Your task to perform on an android device: clear all cookies in the chrome app Image 0: 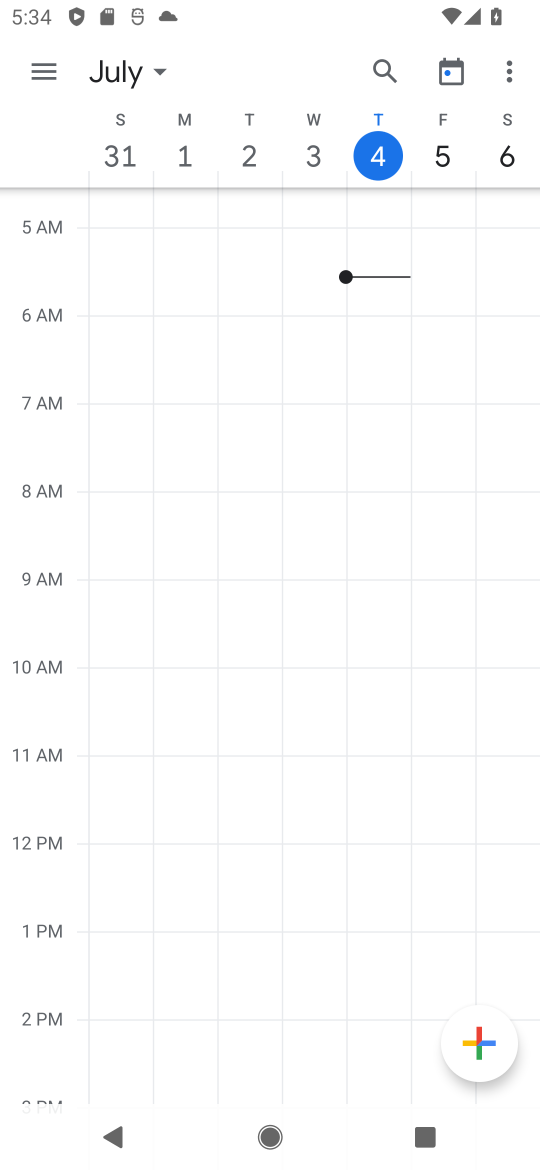
Step 0: press home button
Your task to perform on an android device: clear all cookies in the chrome app Image 1: 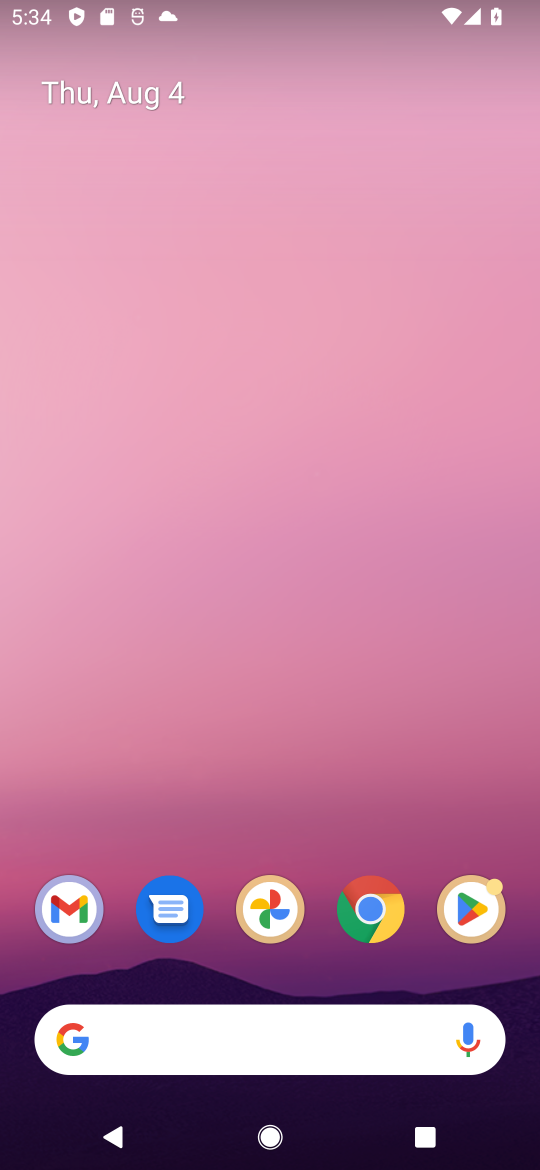
Step 1: click (370, 916)
Your task to perform on an android device: clear all cookies in the chrome app Image 2: 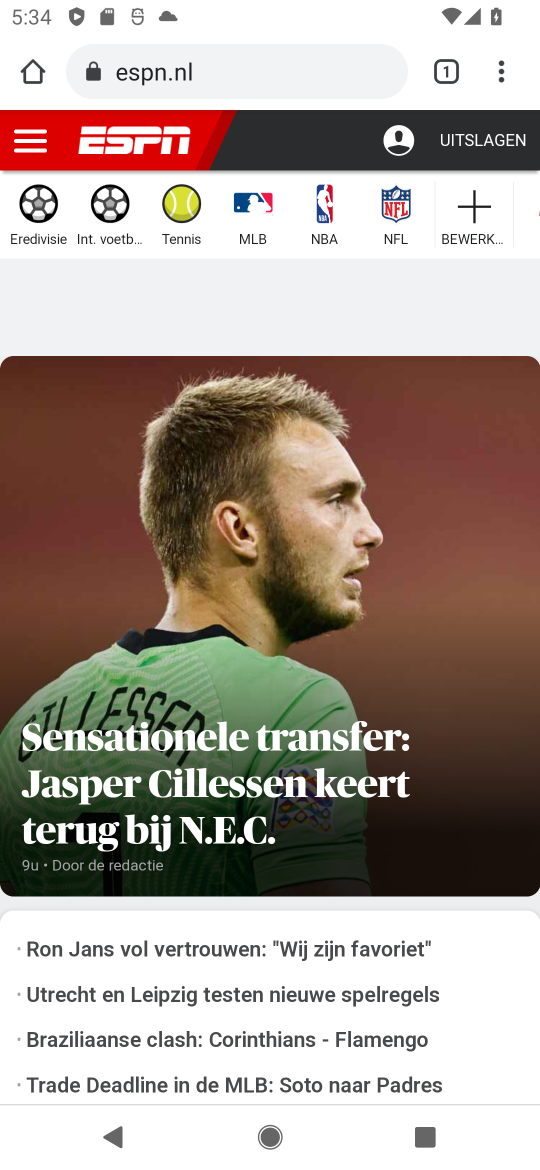
Step 2: click (501, 85)
Your task to perform on an android device: clear all cookies in the chrome app Image 3: 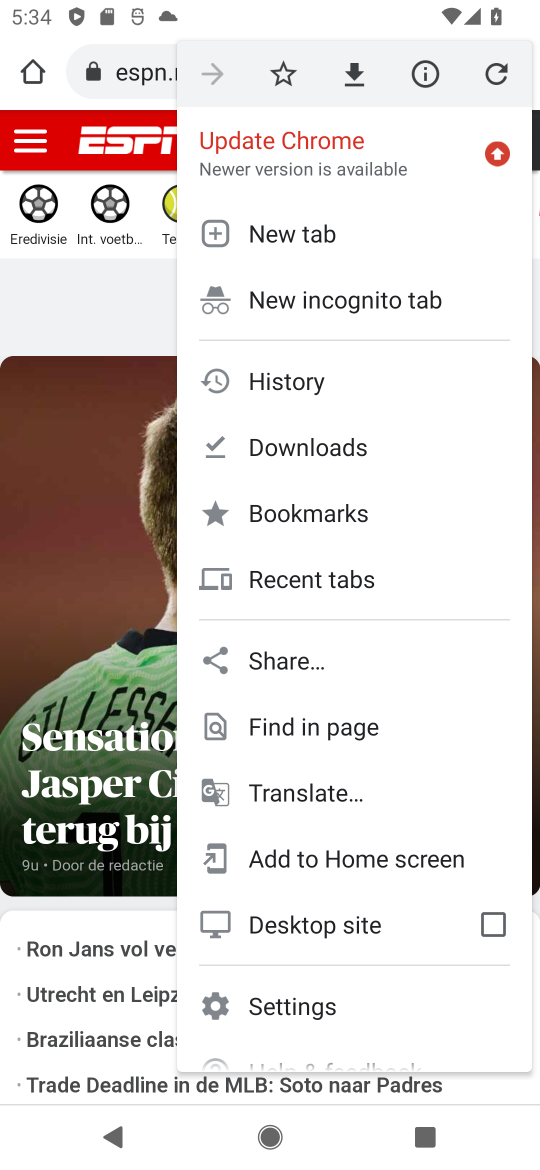
Step 3: click (318, 1010)
Your task to perform on an android device: clear all cookies in the chrome app Image 4: 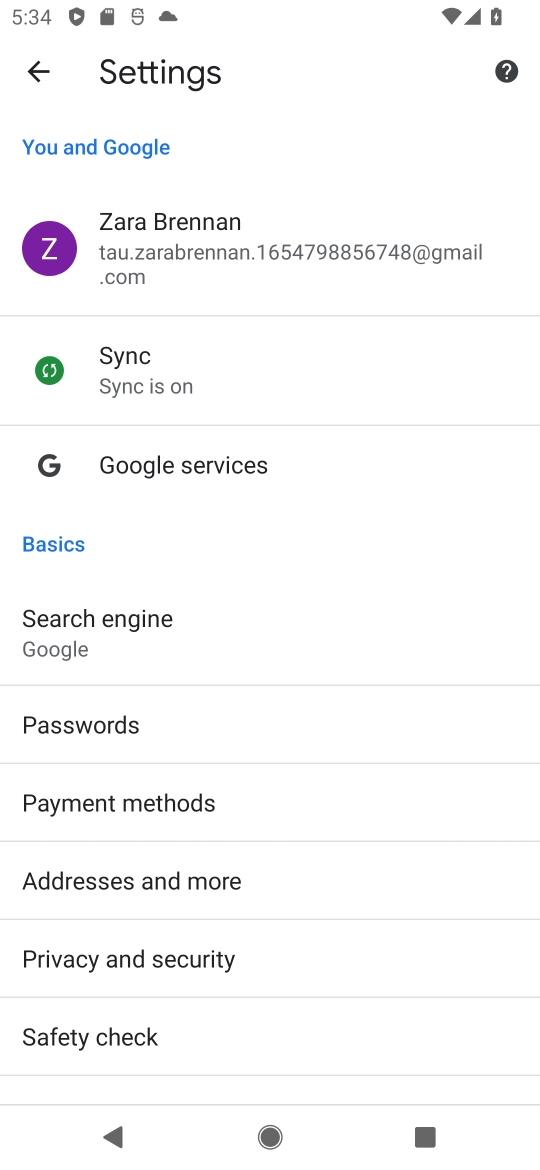
Step 4: drag from (175, 961) to (333, 744)
Your task to perform on an android device: clear all cookies in the chrome app Image 5: 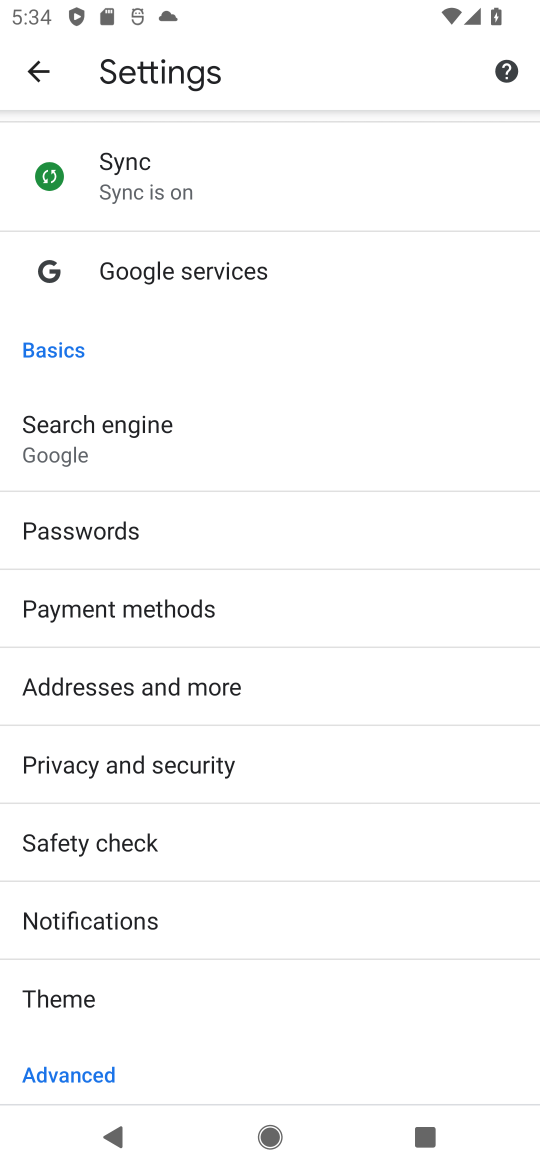
Step 5: drag from (212, 996) to (349, 787)
Your task to perform on an android device: clear all cookies in the chrome app Image 6: 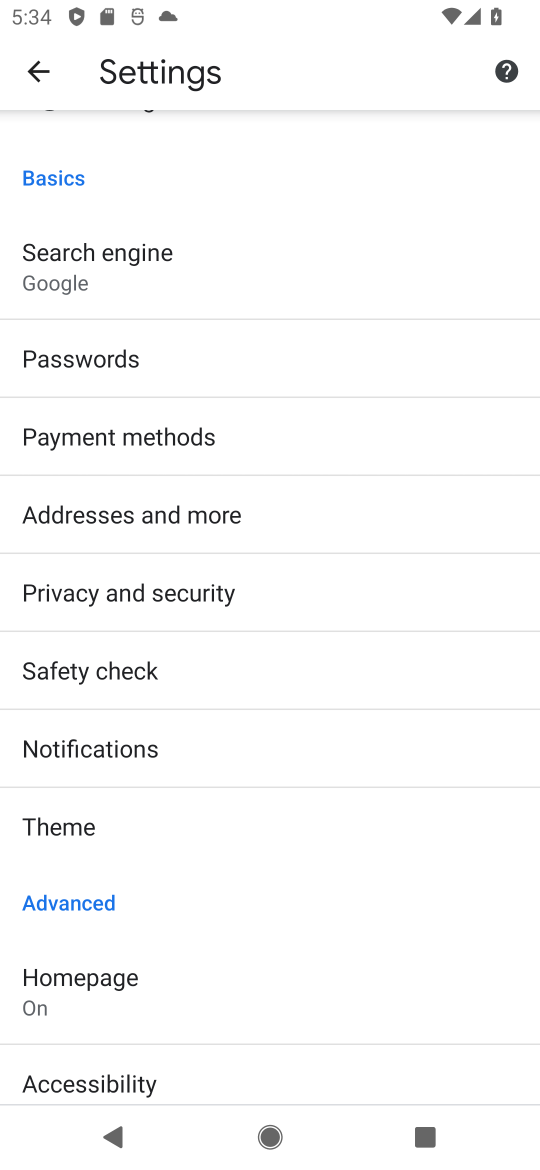
Step 6: click (87, 596)
Your task to perform on an android device: clear all cookies in the chrome app Image 7: 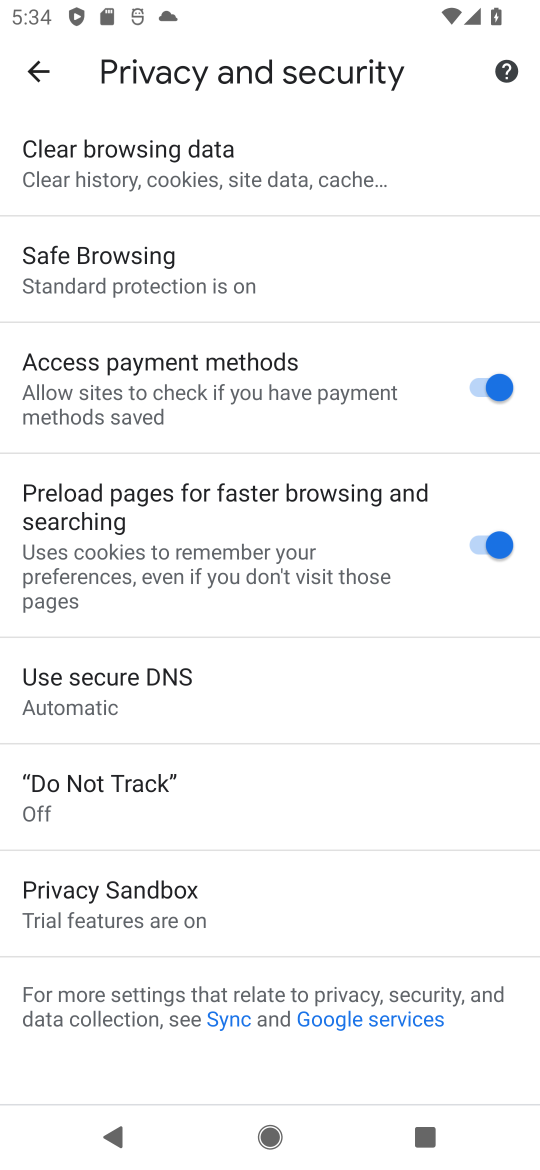
Step 7: click (227, 189)
Your task to perform on an android device: clear all cookies in the chrome app Image 8: 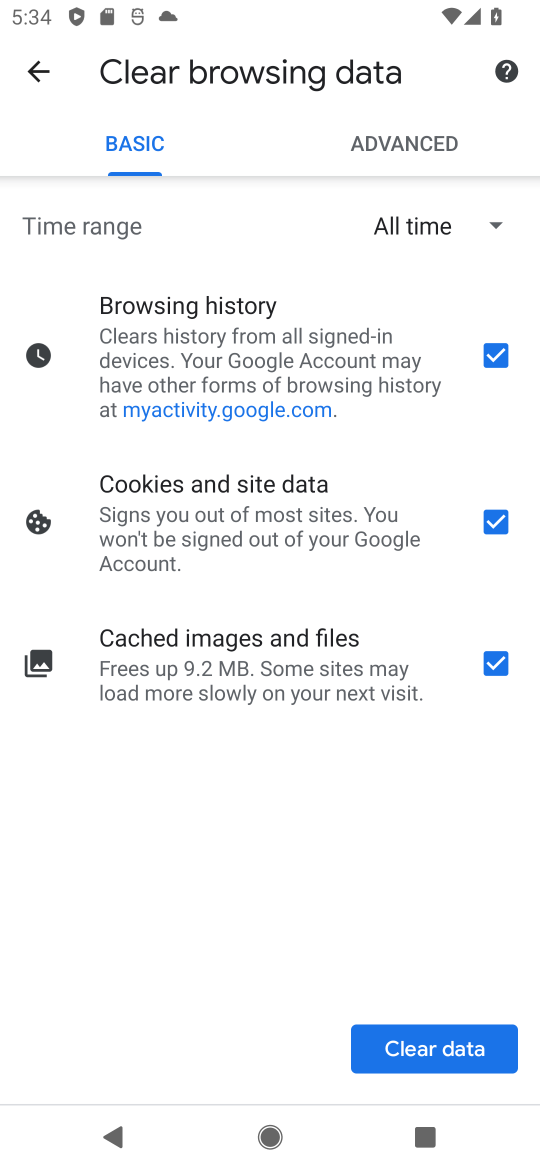
Step 8: click (484, 343)
Your task to perform on an android device: clear all cookies in the chrome app Image 9: 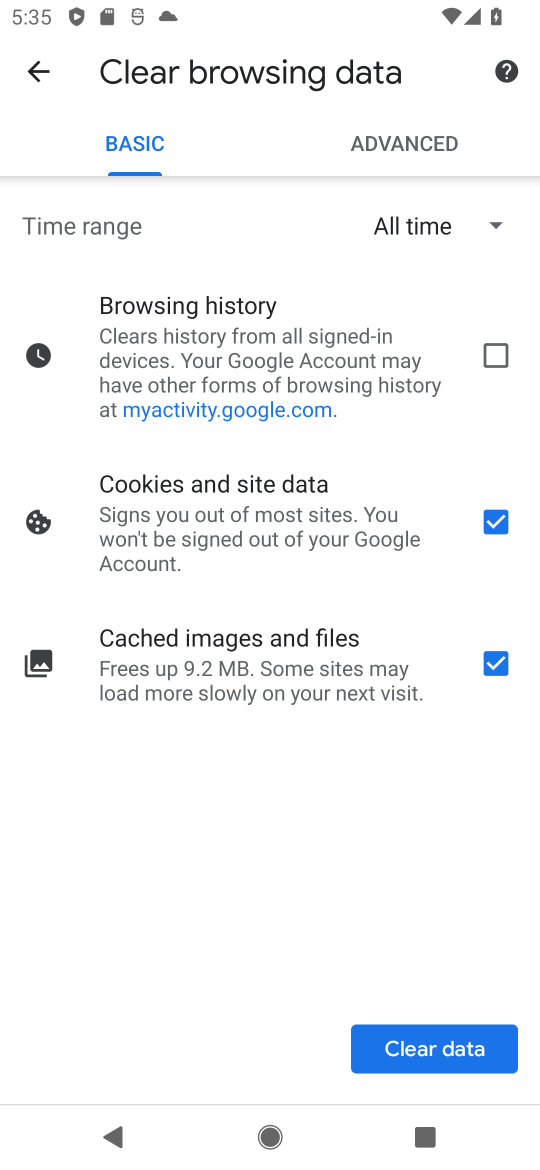
Step 9: click (502, 684)
Your task to perform on an android device: clear all cookies in the chrome app Image 10: 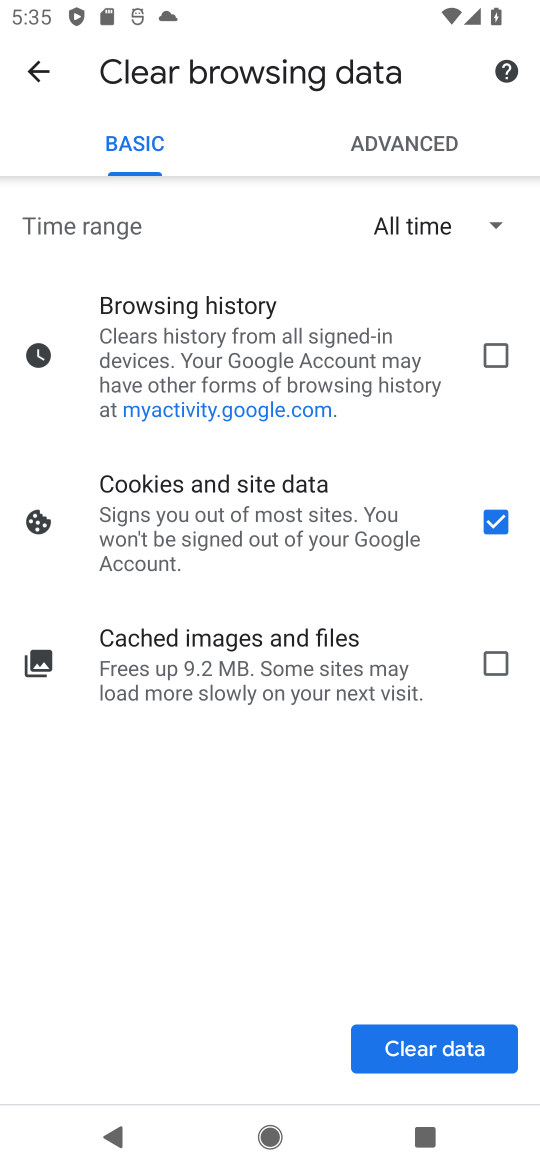
Step 10: click (460, 1054)
Your task to perform on an android device: clear all cookies in the chrome app Image 11: 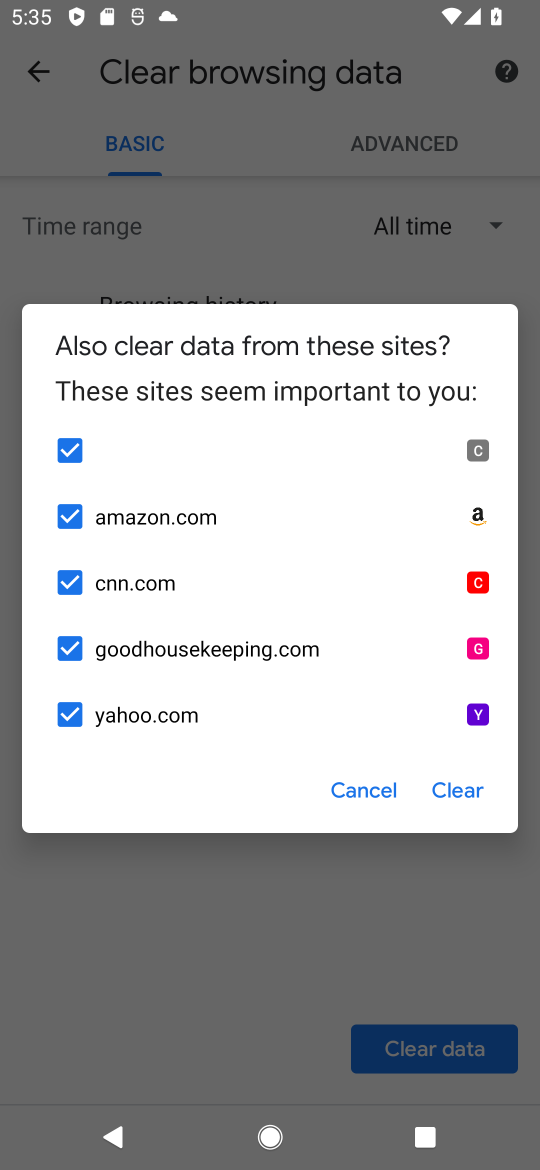
Step 11: click (441, 796)
Your task to perform on an android device: clear all cookies in the chrome app Image 12: 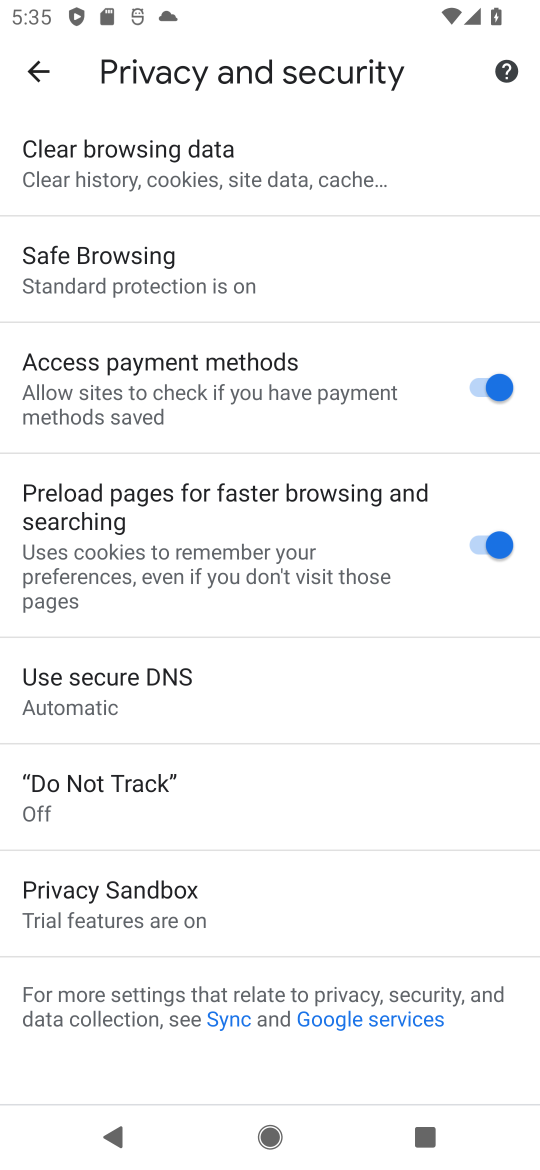
Step 12: task complete